Your task to perform on an android device: turn on wifi Image 0: 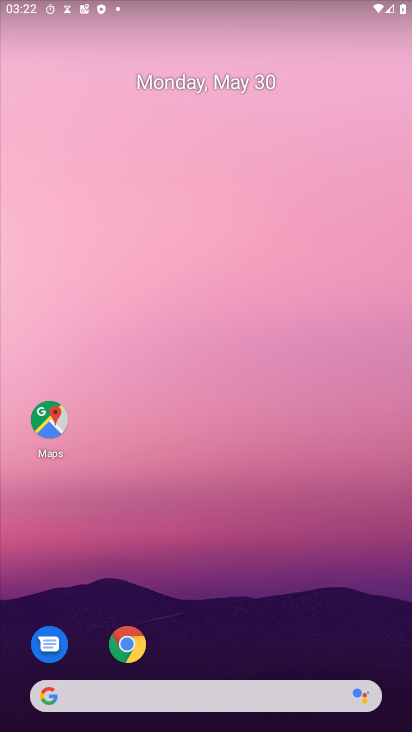
Step 0: press home button
Your task to perform on an android device: turn on wifi Image 1: 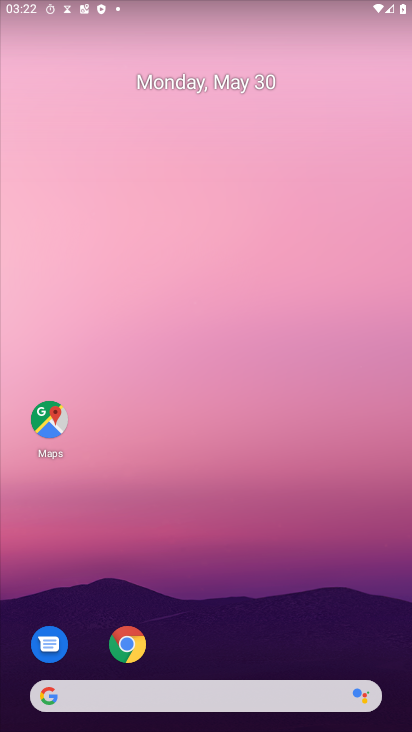
Step 1: task complete